Your task to perform on an android device: Open wifi settings Image 0: 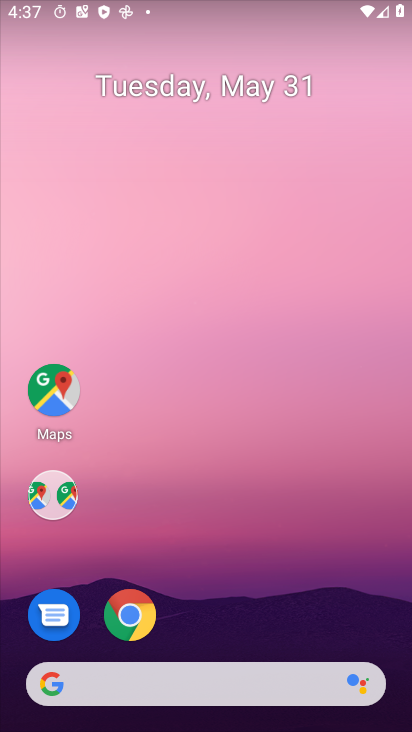
Step 0: drag from (308, 623) to (282, 109)
Your task to perform on an android device: Open wifi settings Image 1: 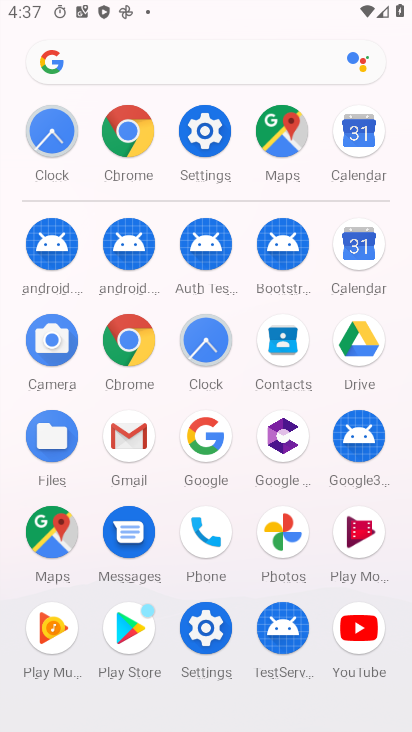
Step 1: click (204, 137)
Your task to perform on an android device: Open wifi settings Image 2: 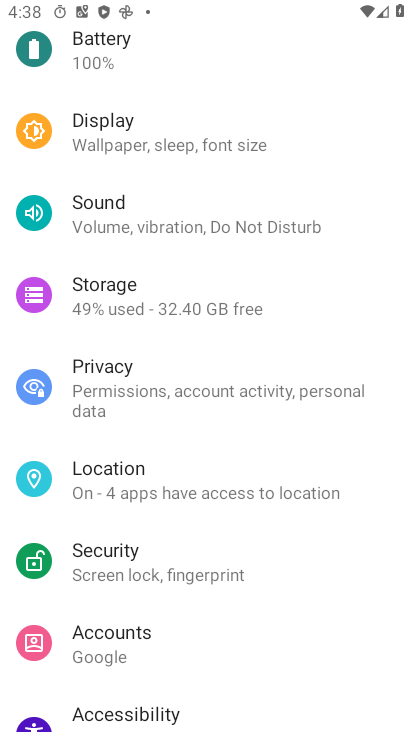
Step 2: drag from (140, 151) to (205, 474)
Your task to perform on an android device: Open wifi settings Image 3: 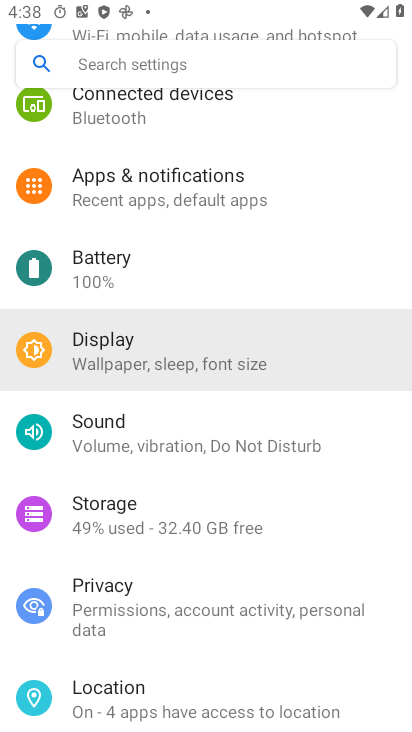
Step 3: drag from (164, 215) to (199, 526)
Your task to perform on an android device: Open wifi settings Image 4: 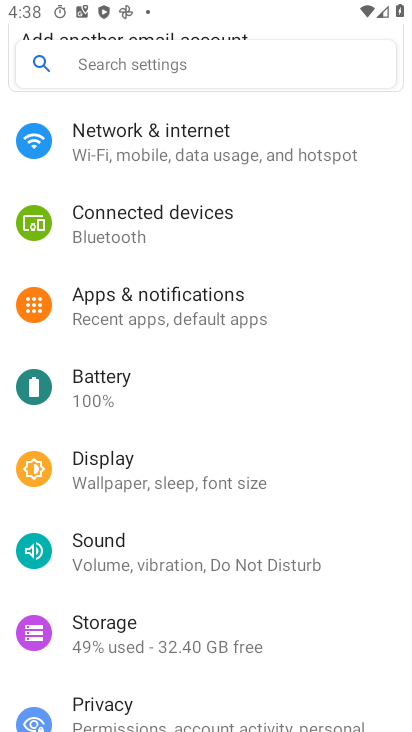
Step 4: drag from (161, 249) to (201, 611)
Your task to perform on an android device: Open wifi settings Image 5: 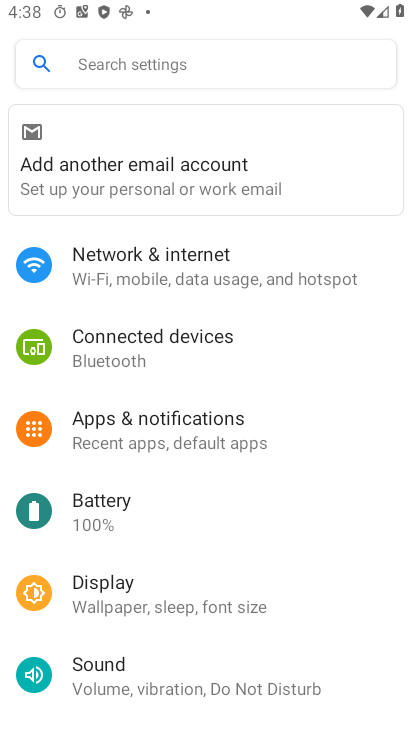
Step 5: click (174, 266)
Your task to perform on an android device: Open wifi settings Image 6: 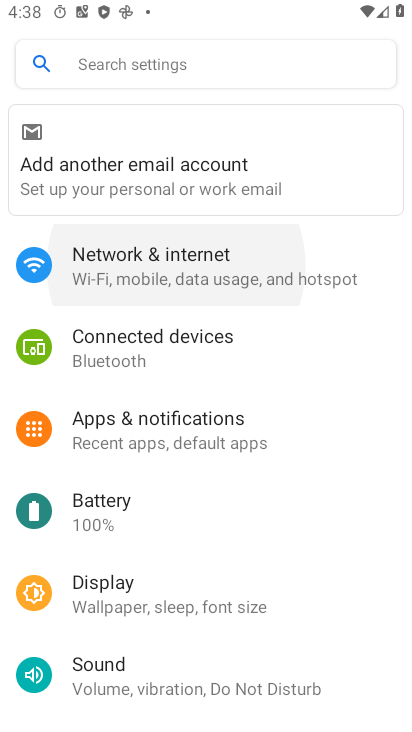
Step 6: click (174, 266)
Your task to perform on an android device: Open wifi settings Image 7: 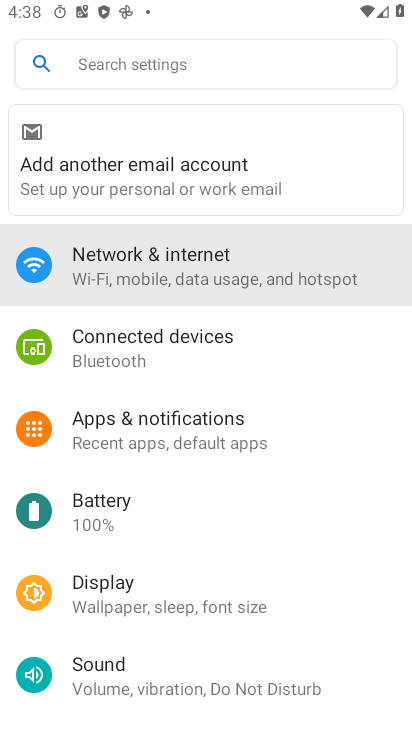
Step 7: click (175, 266)
Your task to perform on an android device: Open wifi settings Image 8: 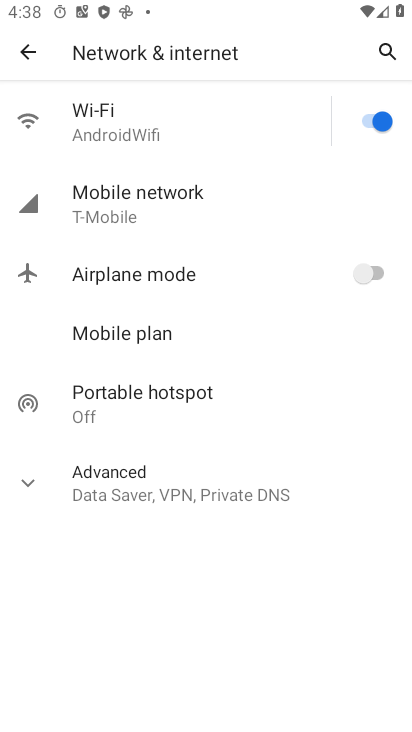
Step 8: task complete